Your task to perform on an android device: Open Android settings Image 0: 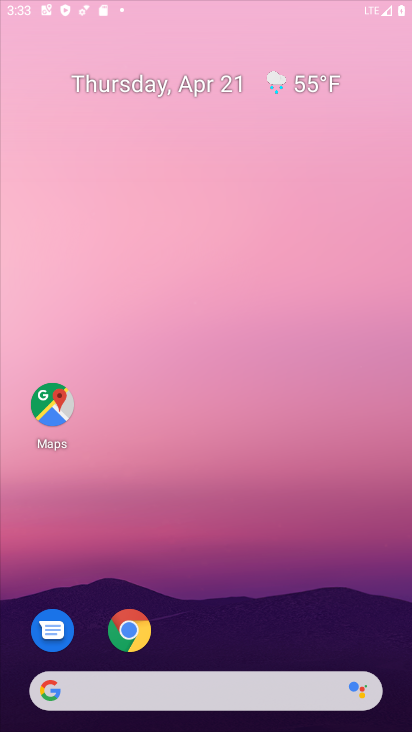
Step 0: click (297, 8)
Your task to perform on an android device: Open Android settings Image 1: 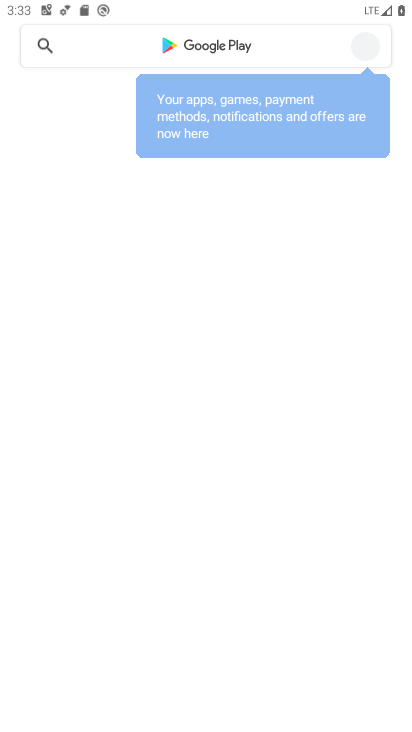
Step 1: press back button
Your task to perform on an android device: Open Android settings Image 2: 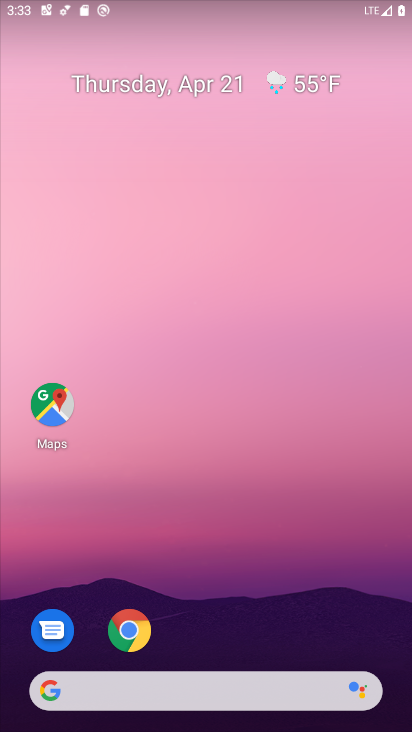
Step 2: drag from (233, 611) to (303, 76)
Your task to perform on an android device: Open Android settings Image 3: 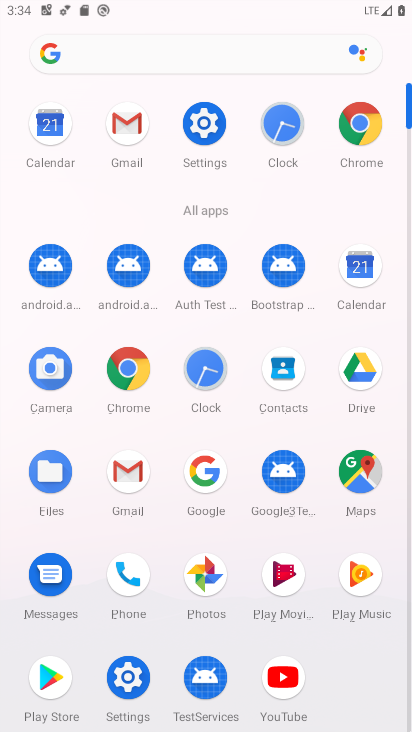
Step 3: click (199, 125)
Your task to perform on an android device: Open Android settings Image 4: 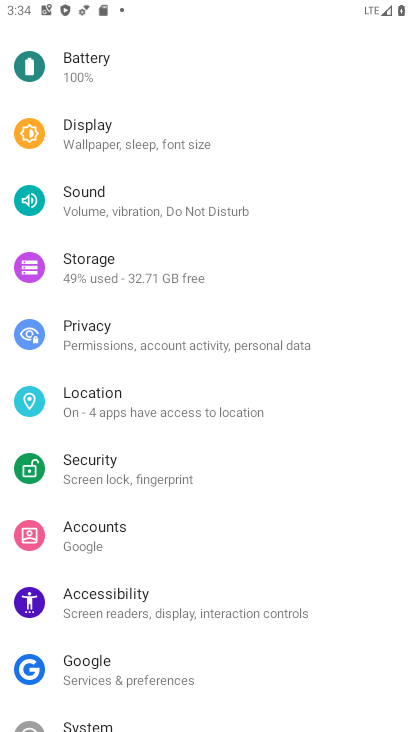
Step 4: drag from (195, 570) to (318, 16)
Your task to perform on an android device: Open Android settings Image 5: 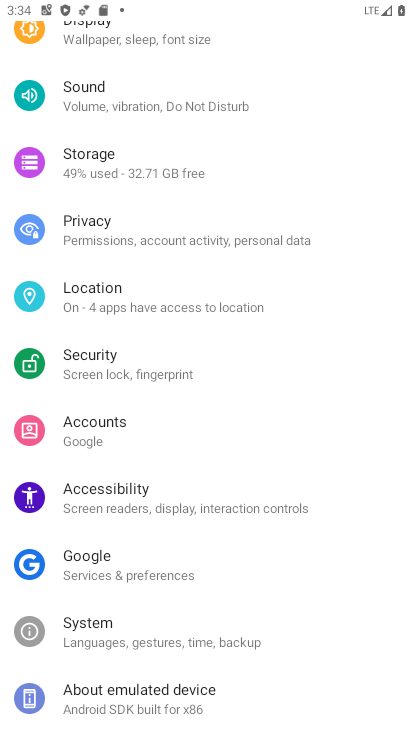
Step 5: click (171, 710)
Your task to perform on an android device: Open Android settings Image 6: 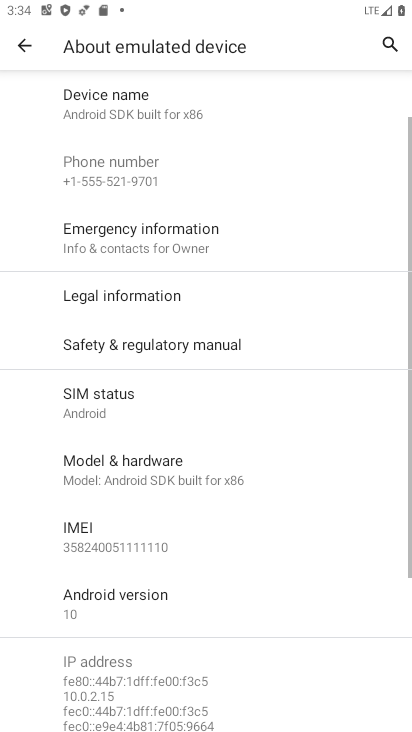
Step 6: click (99, 599)
Your task to perform on an android device: Open Android settings Image 7: 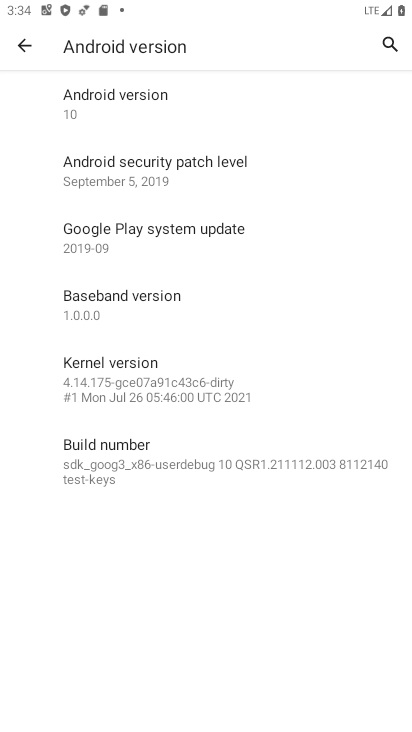
Step 7: task complete